Your task to perform on an android device: Open sound settings Image 0: 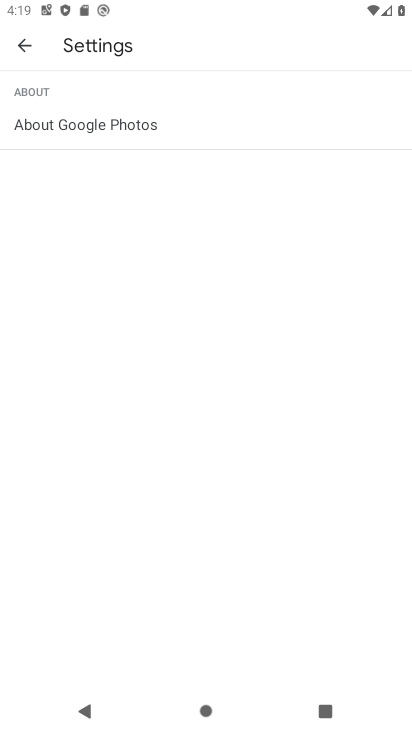
Step 0: click (21, 41)
Your task to perform on an android device: Open sound settings Image 1: 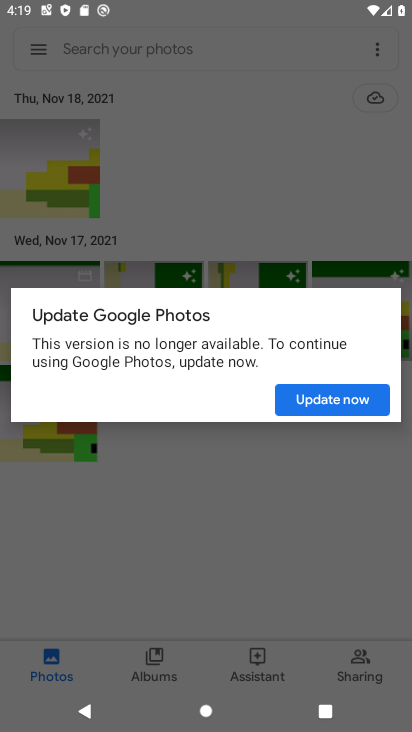
Step 1: press home button
Your task to perform on an android device: Open sound settings Image 2: 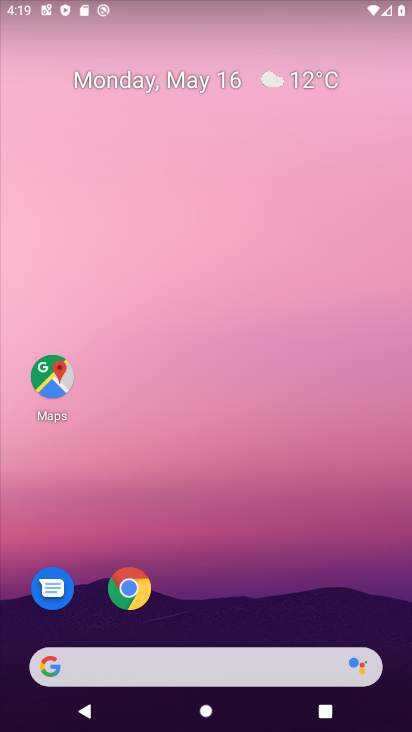
Step 2: drag from (295, 284) to (314, 57)
Your task to perform on an android device: Open sound settings Image 3: 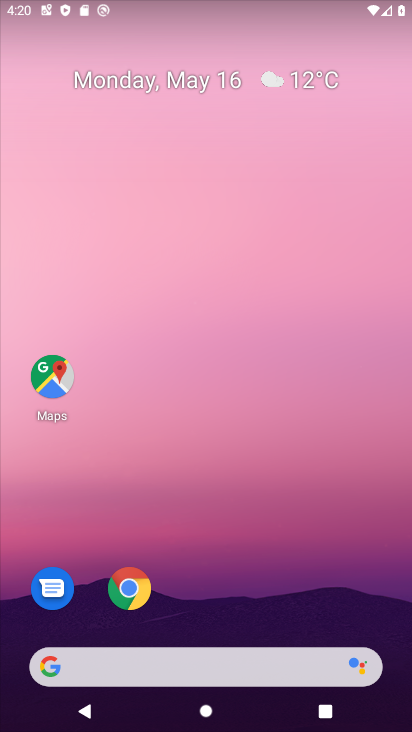
Step 3: drag from (272, 594) to (322, 41)
Your task to perform on an android device: Open sound settings Image 4: 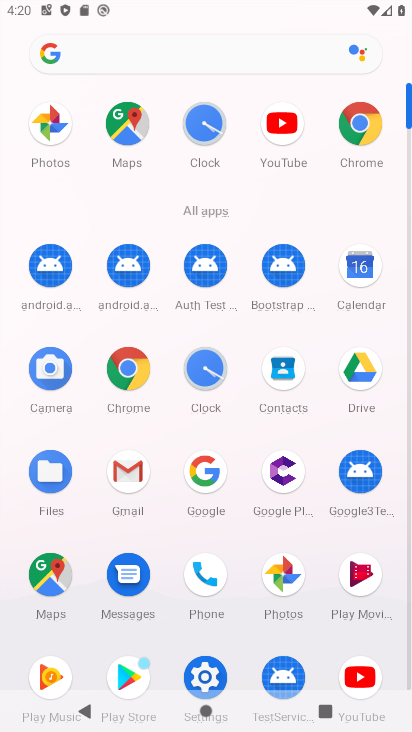
Step 4: click (201, 661)
Your task to perform on an android device: Open sound settings Image 5: 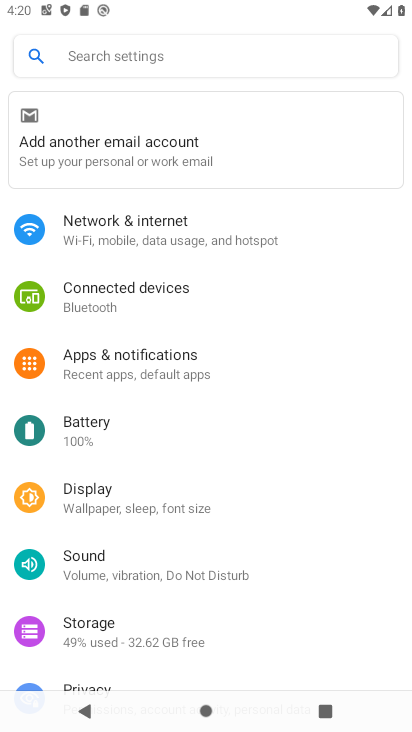
Step 5: click (84, 560)
Your task to perform on an android device: Open sound settings Image 6: 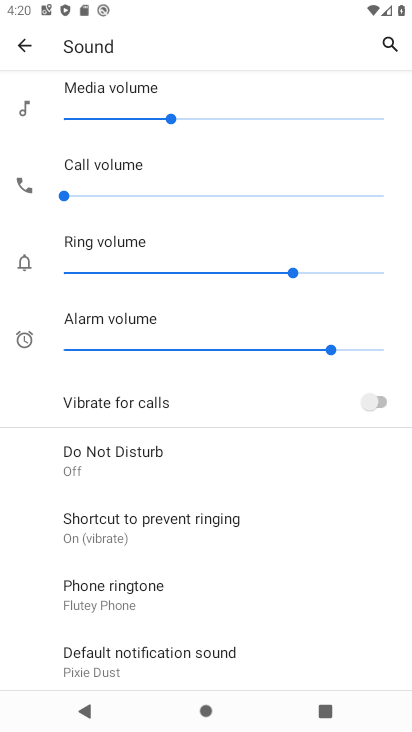
Step 6: task complete